Your task to perform on an android device: change the clock display to analog Image 0: 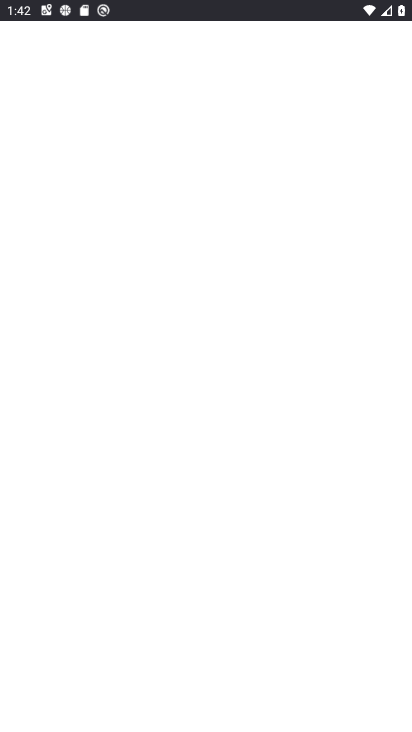
Step 0: press home button
Your task to perform on an android device: change the clock display to analog Image 1: 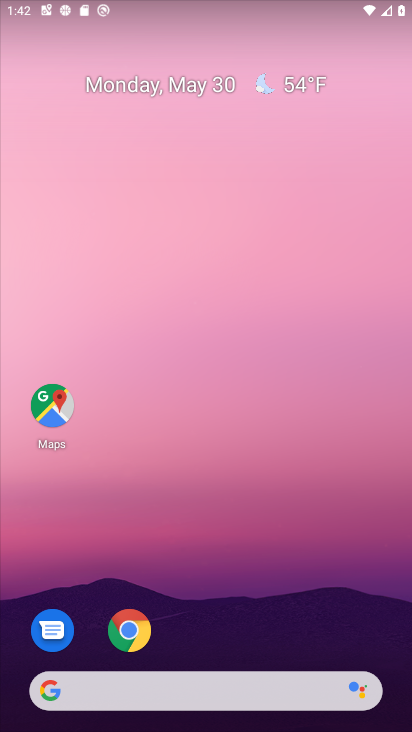
Step 1: drag from (236, 694) to (351, 159)
Your task to perform on an android device: change the clock display to analog Image 2: 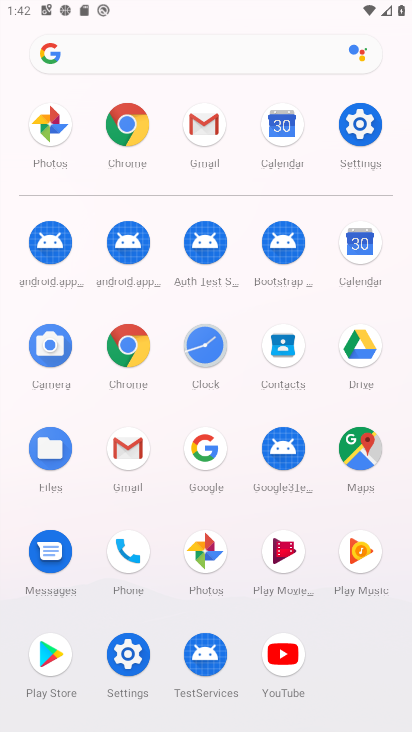
Step 2: click (193, 348)
Your task to perform on an android device: change the clock display to analog Image 3: 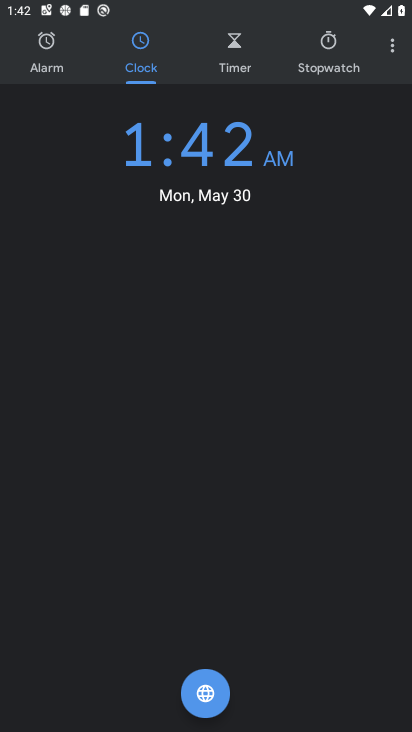
Step 3: click (393, 43)
Your task to perform on an android device: change the clock display to analog Image 4: 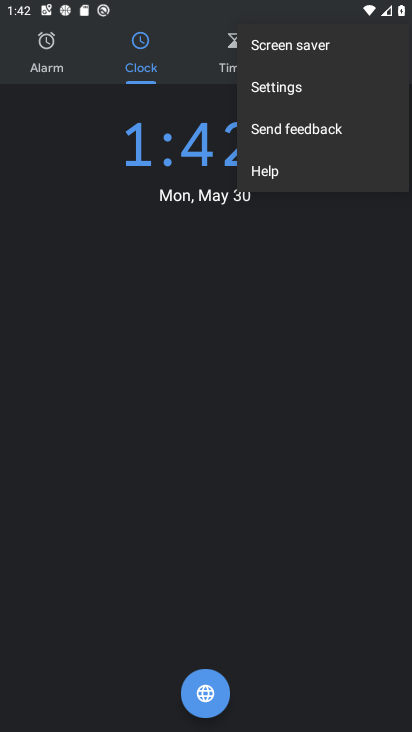
Step 4: click (266, 85)
Your task to perform on an android device: change the clock display to analog Image 5: 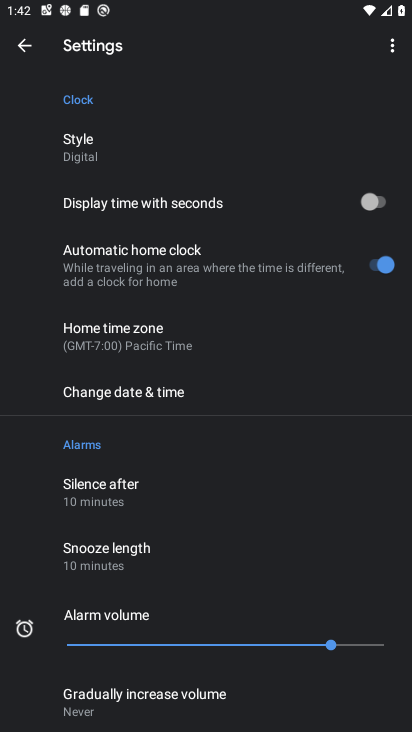
Step 5: click (78, 162)
Your task to perform on an android device: change the clock display to analog Image 6: 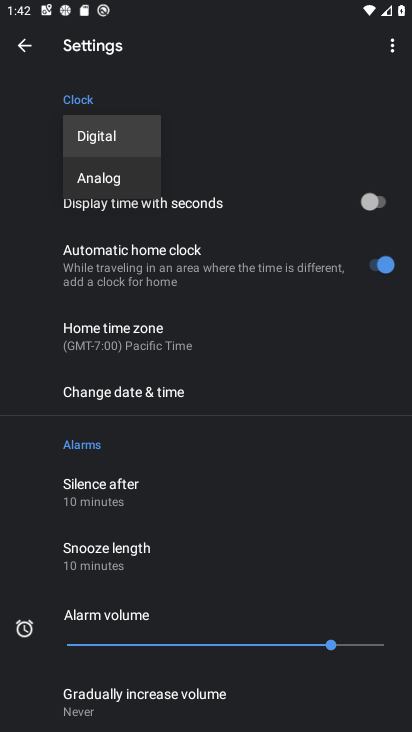
Step 6: click (129, 177)
Your task to perform on an android device: change the clock display to analog Image 7: 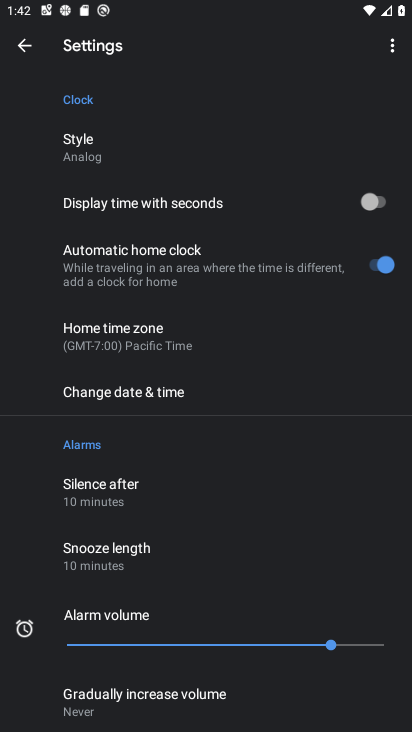
Step 7: task complete